Your task to perform on an android device: Go to notification settings Image 0: 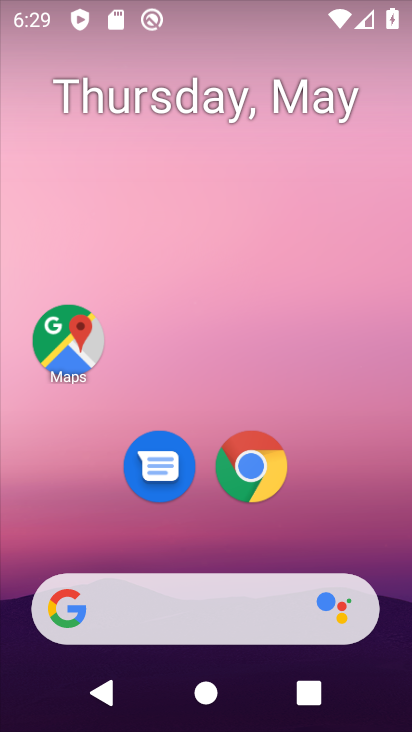
Step 0: drag from (338, 512) to (236, 82)
Your task to perform on an android device: Go to notification settings Image 1: 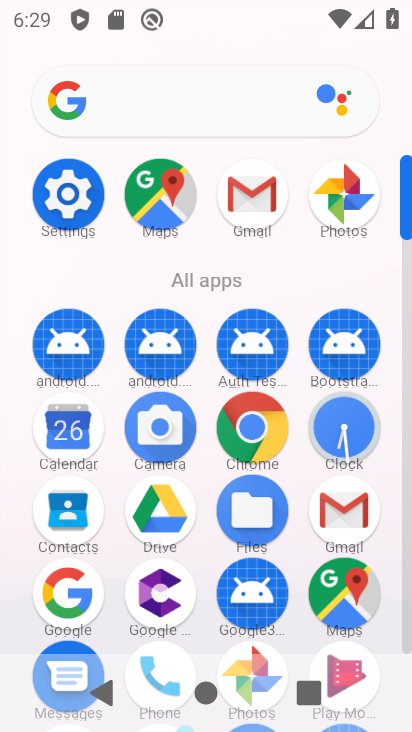
Step 1: click (74, 193)
Your task to perform on an android device: Go to notification settings Image 2: 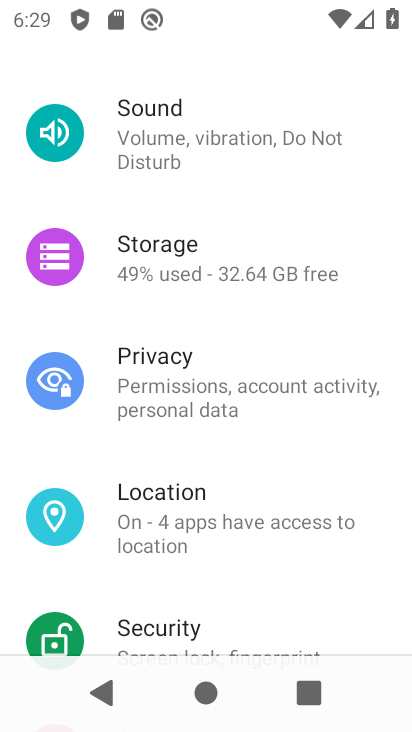
Step 2: drag from (238, 208) to (315, 561)
Your task to perform on an android device: Go to notification settings Image 3: 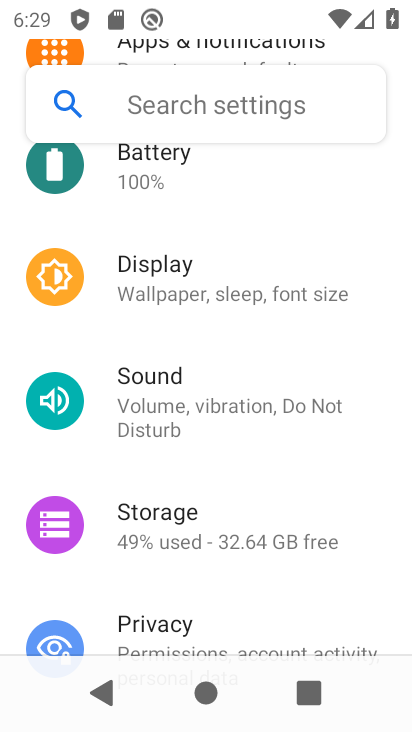
Step 3: drag from (231, 213) to (338, 634)
Your task to perform on an android device: Go to notification settings Image 4: 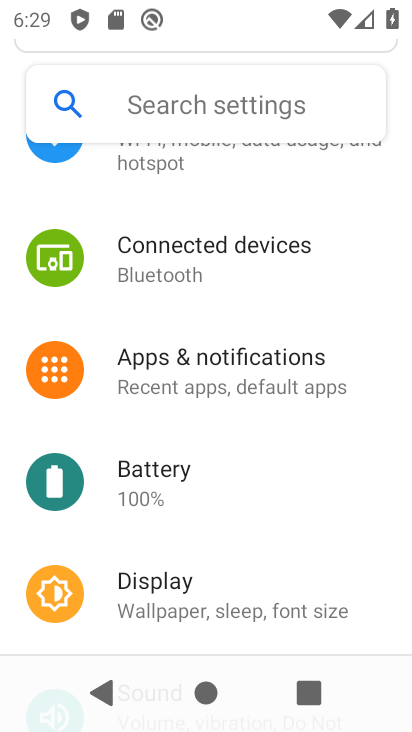
Step 4: click (211, 350)
Your task to perform on an android device: Go to notification settings Image 5: 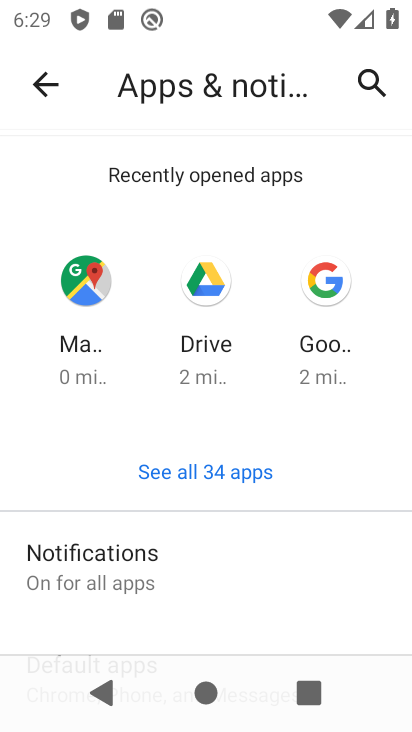
Step 5: task complete